Your task to perform on an android device: turn off picture-in-picture Image 0: 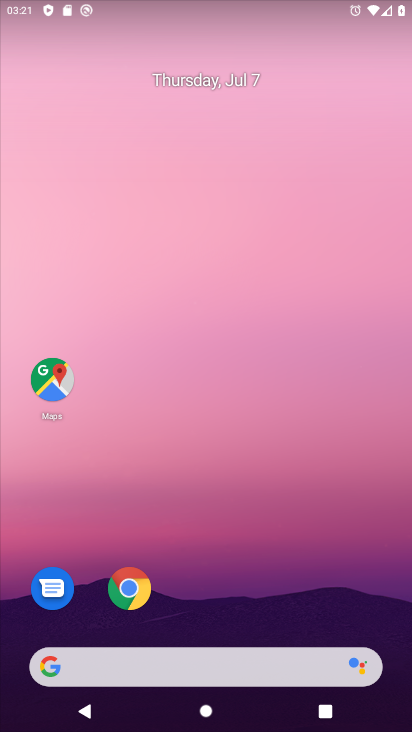
Step 0: click (128, 589)
Your task to perform on an android device: turn off picture-in-picture Image 1: 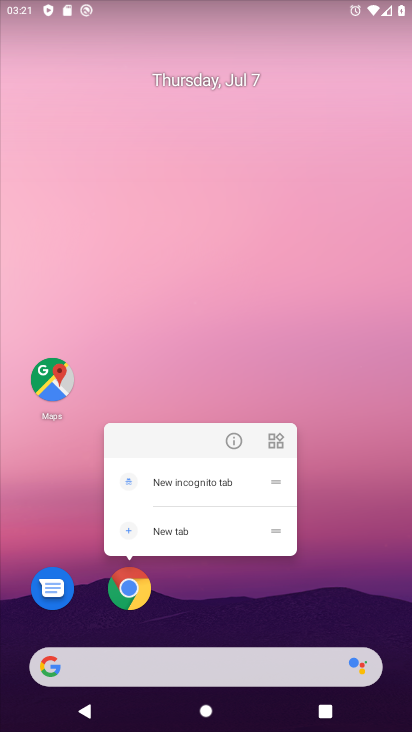
Step 1: click (235, 437)
Your task to perform on an android device: turn off picture-in-picture Image 2: 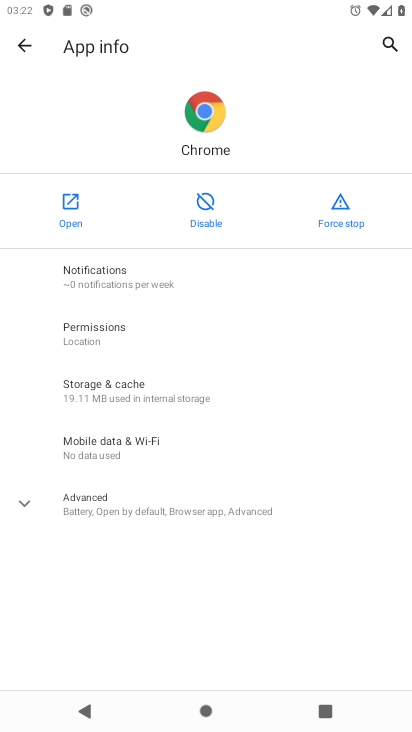
Step 2: click (110, 514)
Your task to perform on an android device: turn off picture-in-picture Image 3: 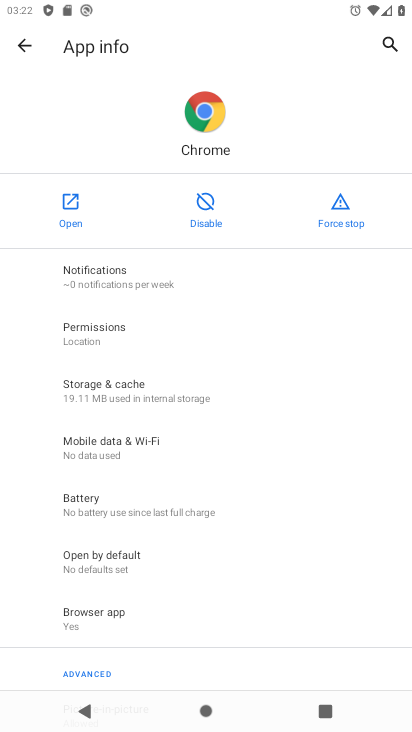
Step 3: drag from (96, 625) to (106, 327)
Your task to perform on an android device: turn off picture-in-picture Image 4: 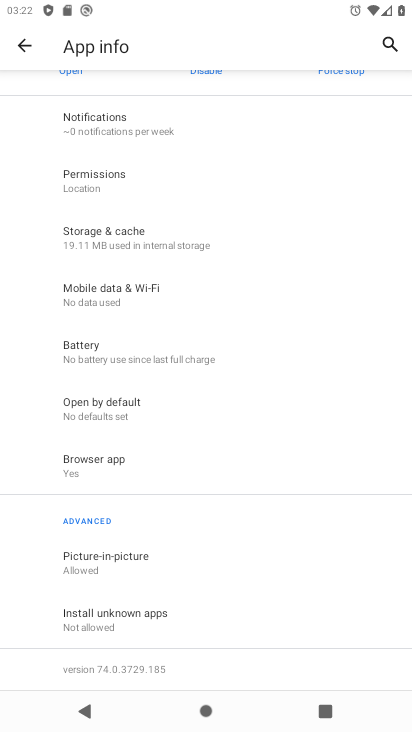
Step 4: click (119, 568)
Your task to perform on an android device: turn off picture-in-picture Image 5: 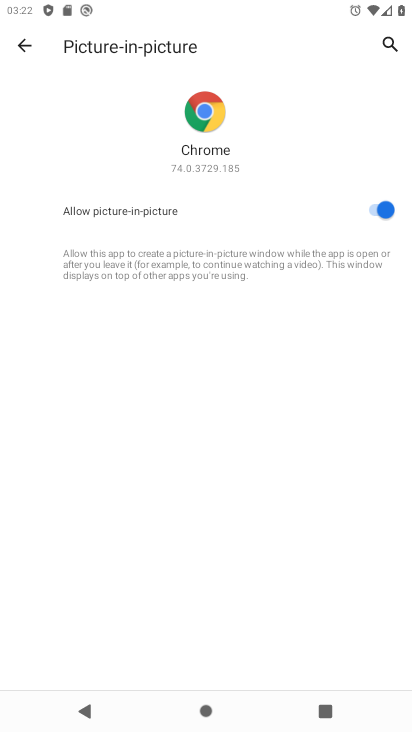
Step 5: click (372, 207)
Your task to perform on an android device: turn off picture-in-picture Image 6: 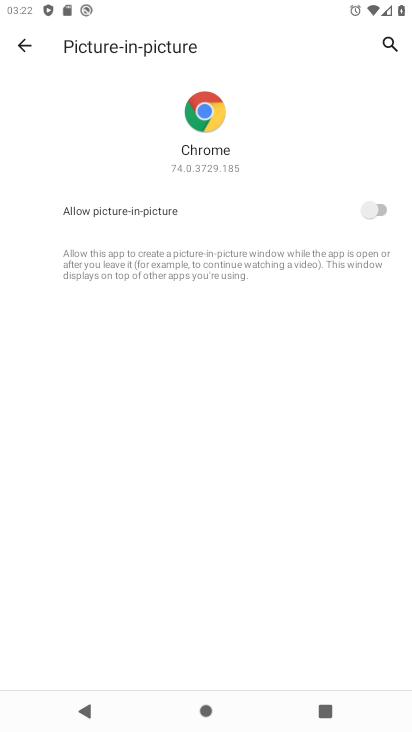
Step 6: task complete